Your task to perform on an android device: When is my next appointment? Image 0: 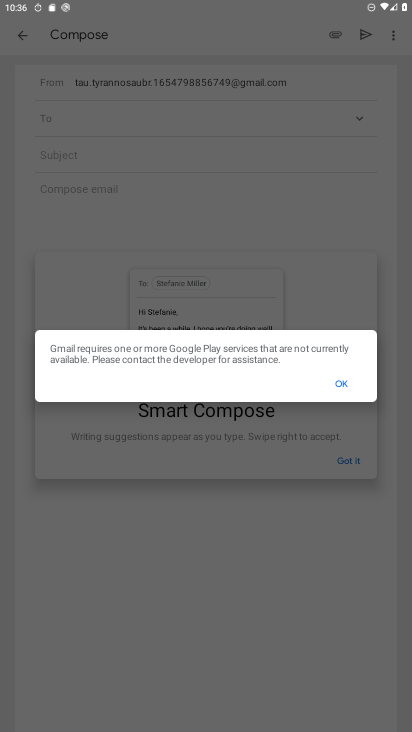
Step 0: press home button
Your task to perform on an android device: When is my next appointment? Image 1: 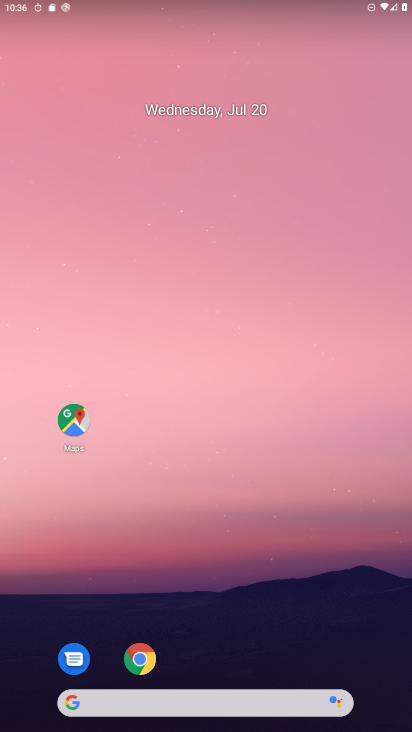
Step 1: drag from (240, 575) to (208, 6)
Your task to perform on an android device: When is my next appointment? Image 2: 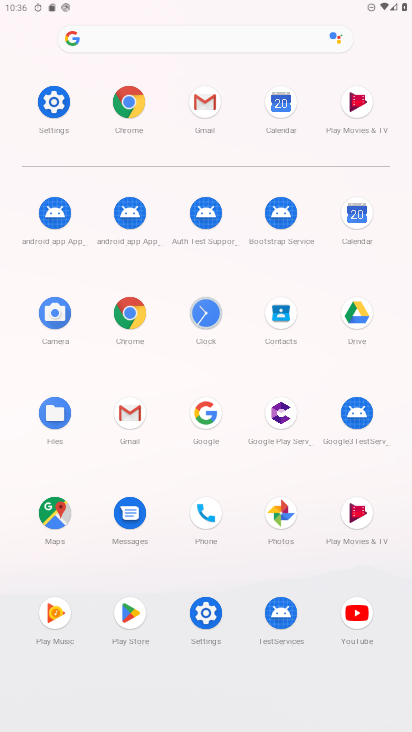
Step 2: click (350, 209)
Your task to perform on an android device: When is my next appointment? Image 3: 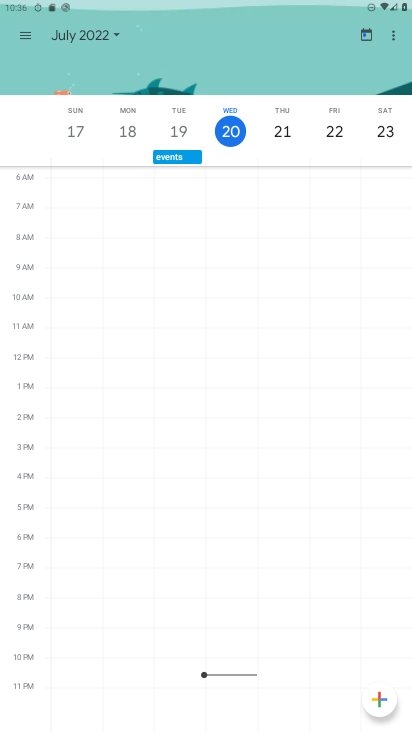
Step 3: task complete